Your task to perform on an android device: Show the shopping cart on newegg. Search for "usb-c to usb-a" on newegg, select the first entry, and add it to the cart. Image 0: 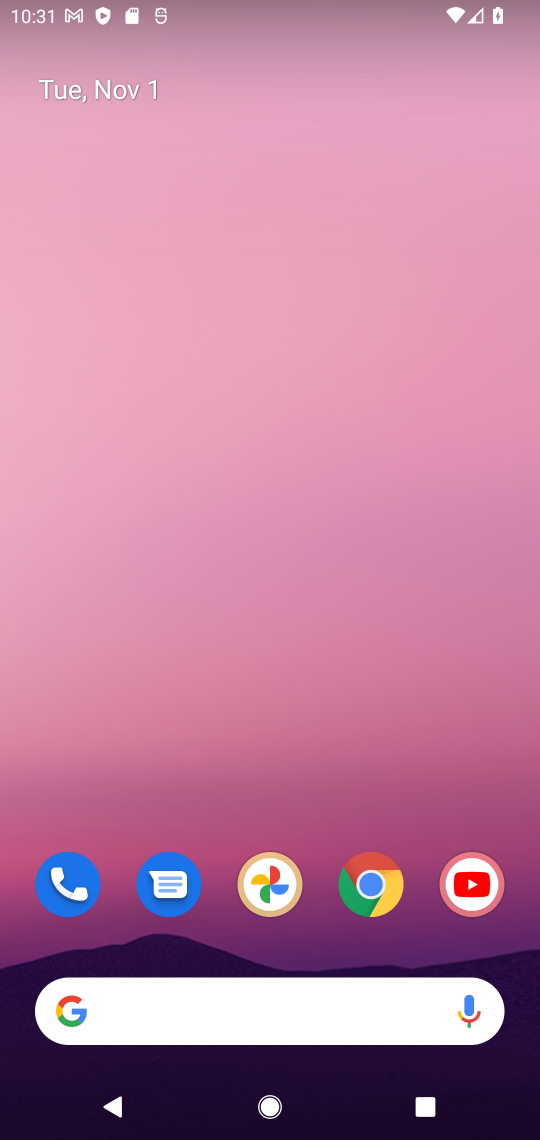
Step 0: click (355, 887)
Your task to perform on an android device: Show the shopping cart on newegg. Search for "usb-c to usb-a" on newegg, select the first entry, and add it to the cart. Image 1: 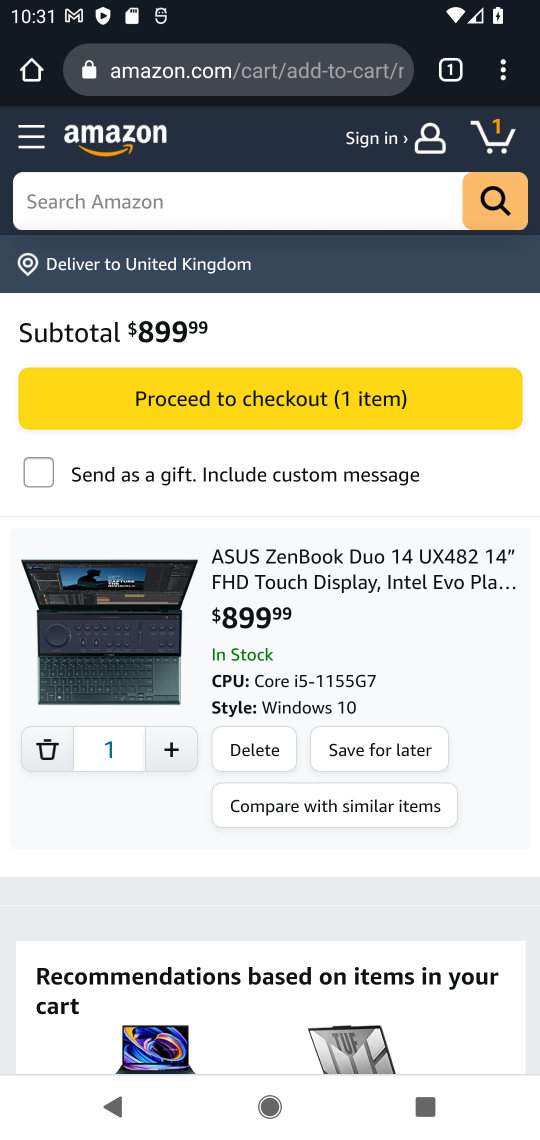
Step 1: click (266, 75)
Your task to perform on an android device: Show the shopping cart on newegg. Search for "usb-c to usb-a" on newegg, select the first entry, and add it to the cart. Image 2: 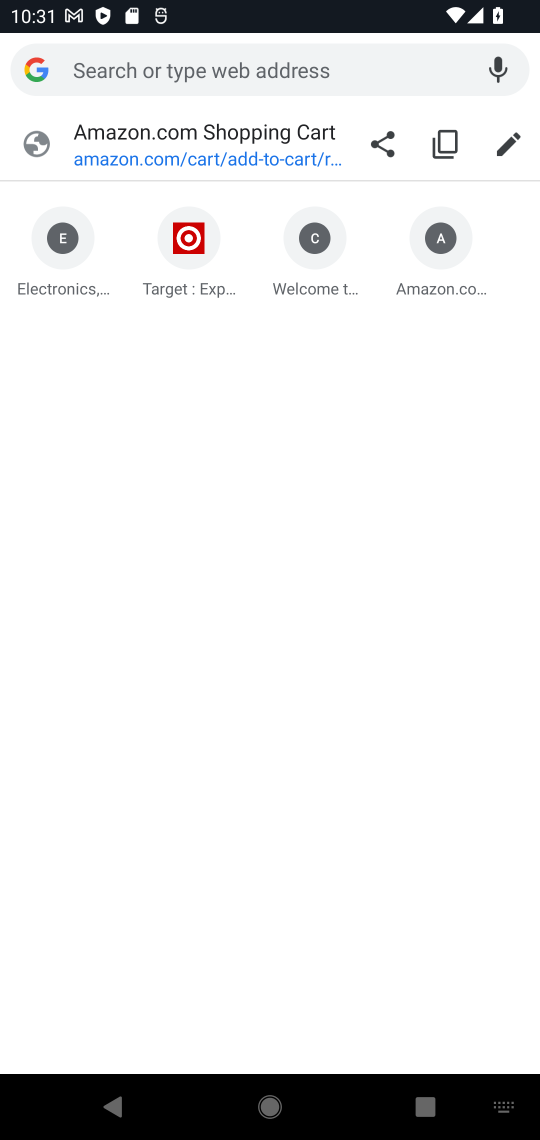
Step 2: type "newegg"
Your task to perform on an android device: Show the shopping cart on newegg. Search for "usb-c to usb-a" on newegg, select the first entry, and add it to the cart. Image 3: 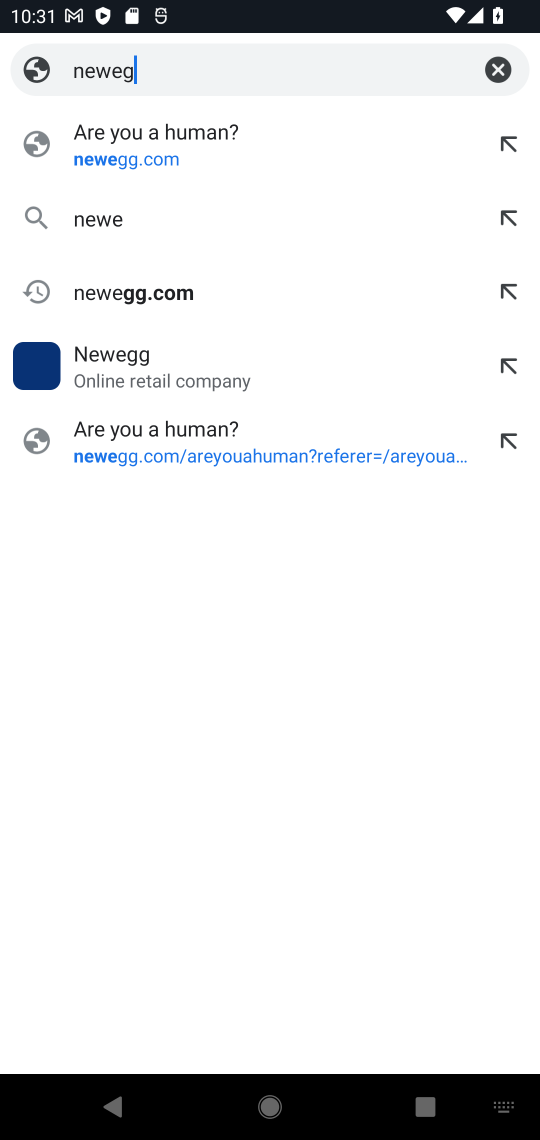
Step 3: type ""
Your task to perform on an android device: Show the shopping cart on newegg. Search for "usb-c to usb-a" on newegg, select the first entry, and add it to the cart. Image 4: 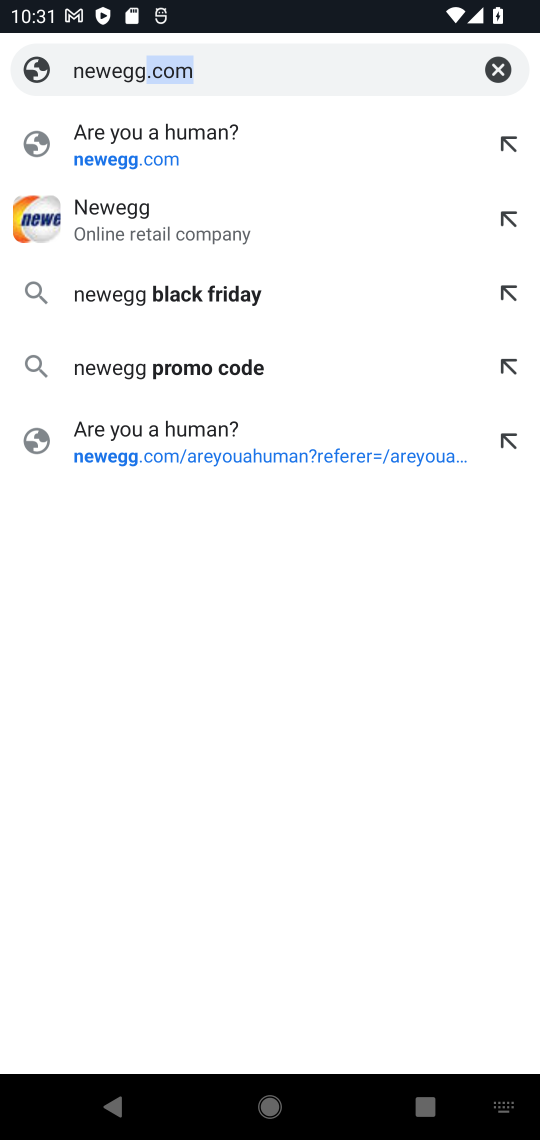
Step 4: press enter
Your task to perform on an android device: Show the shopping cart on newegg. Search for "usb-c to usb-a" on newegg, select the first entry, and add it to the cart. Image 5: 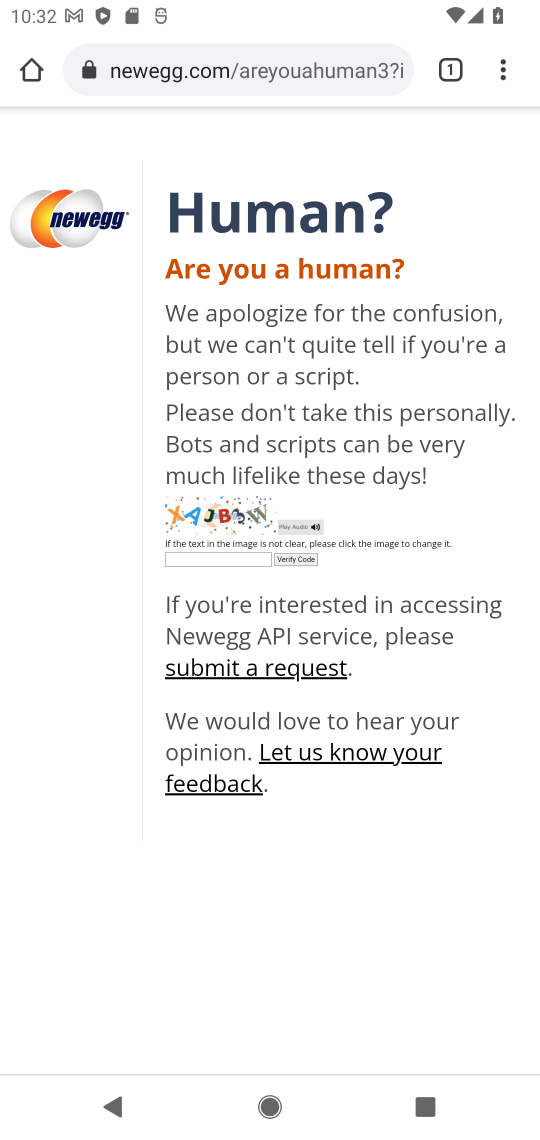
Step 5: click (196, 567)
Your task to perform on an android device: Show the shopping cart on newegg. Search for "usb-c to usb-a" on newegg, select the first entry, and add it to the cart. Image 6: 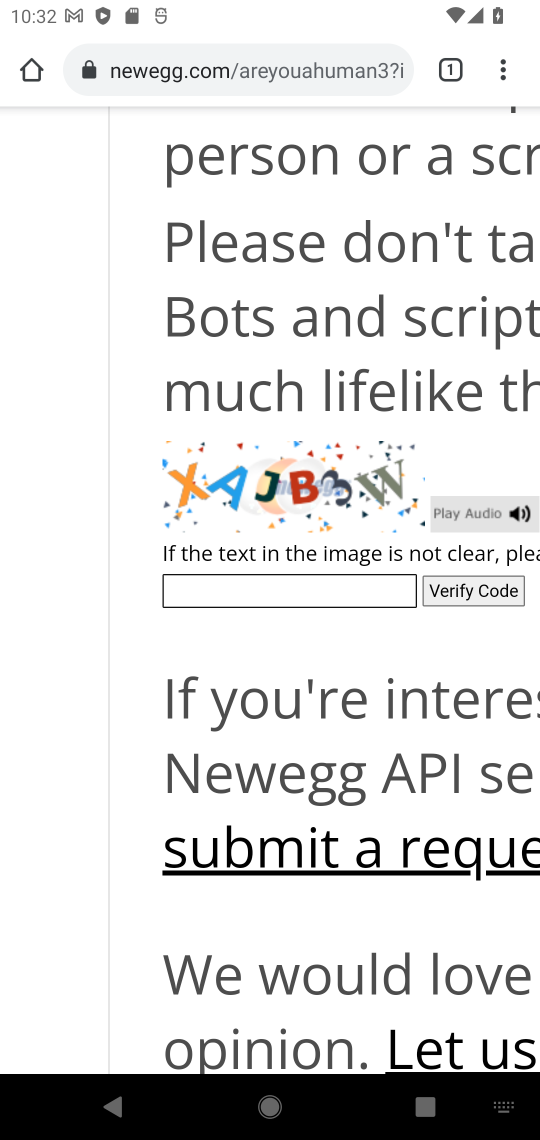
Step 6: type "XAJB3W"
Your task to perform on an android device: Show the shopping cart on newegg. Search for "usb-c to usb-a" on newegg, select the first entry, and add it to the cart. Image 7: 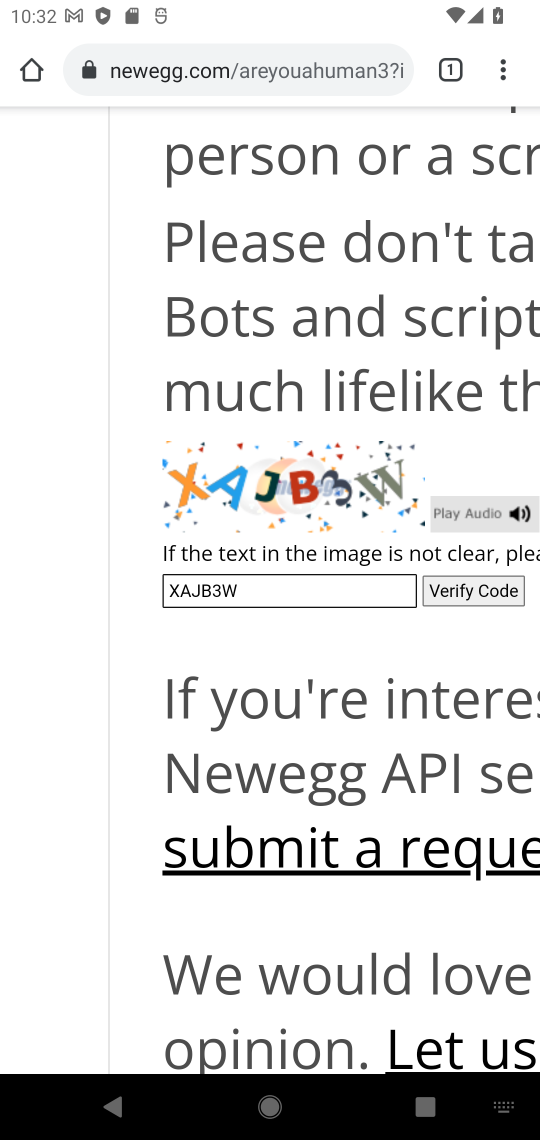
Step 7: click (476, 593)
Your task to perform on an android device: Show the shopping cart on newegg. Search for "usb-c to usb-a" on newegg, select the first entry, and add it to the cart. Image 8: 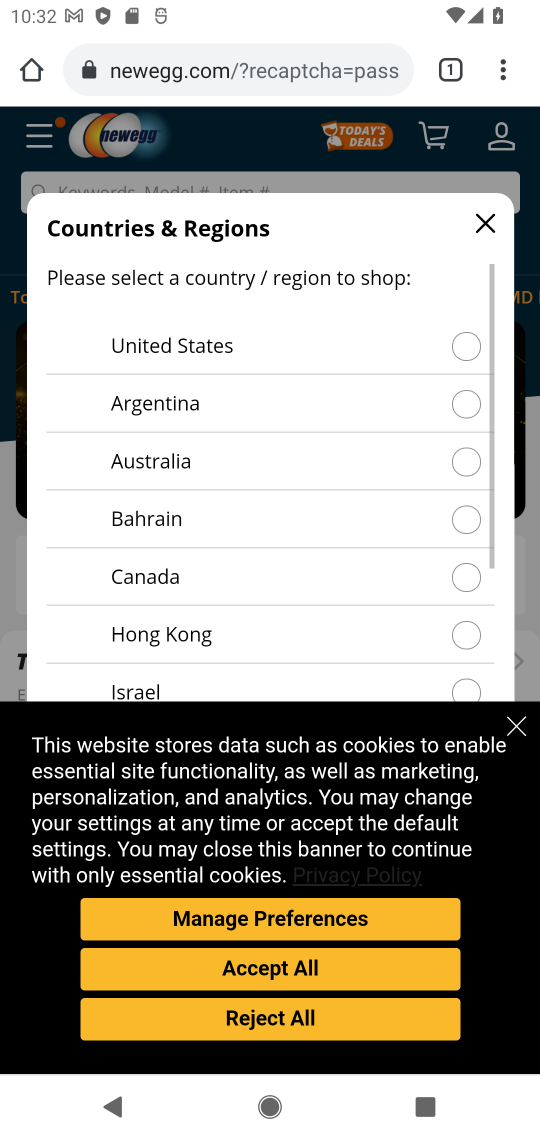
Step 8: click (326, 974)
Your task to perform on an android device: Show the shopping cart on newegg. Search for "usb-c to usb-a" on newegg, select the first entry, and add it to the cart. Image 9: 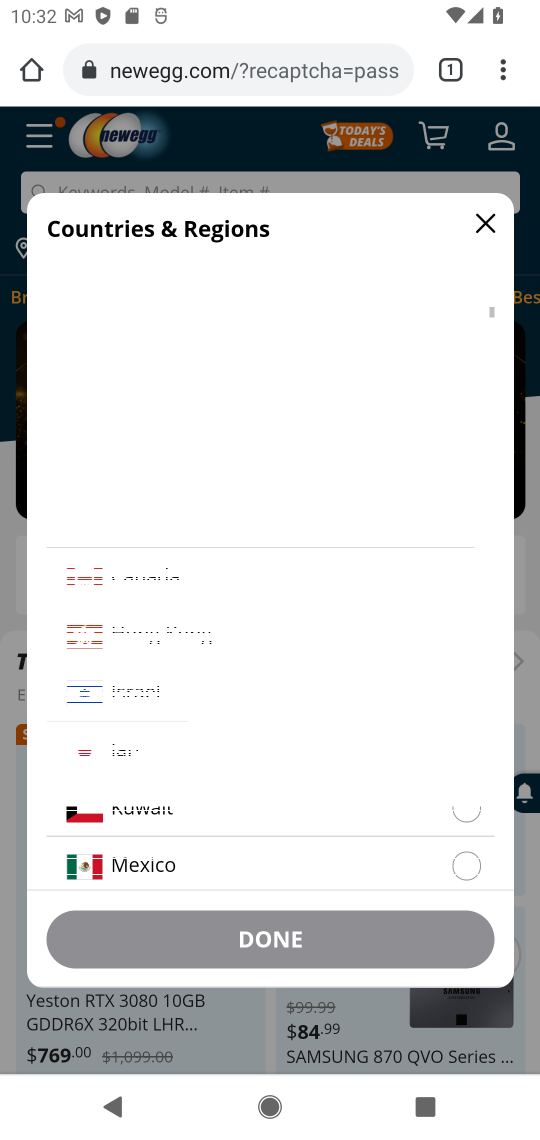
Step 9: click (458, 358)
Your task to perform on an android device: Show the shopping cart on newegg. Search for "usb-c to usb-a" on newegg, select the first entry, and add it to the cart. Image 10: 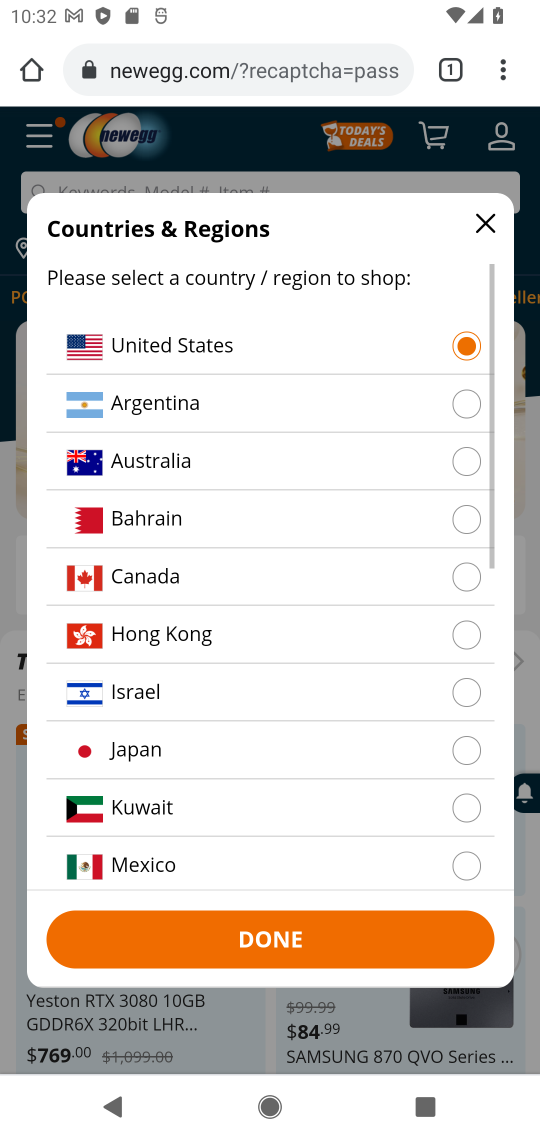
Step 10: click (362, 952)
Your task to perform on an android device: Show the shopping cart on newegg. Search for "usb-c to usb-a" on newegg, select the first entry, and add it to the cart. Image 11: 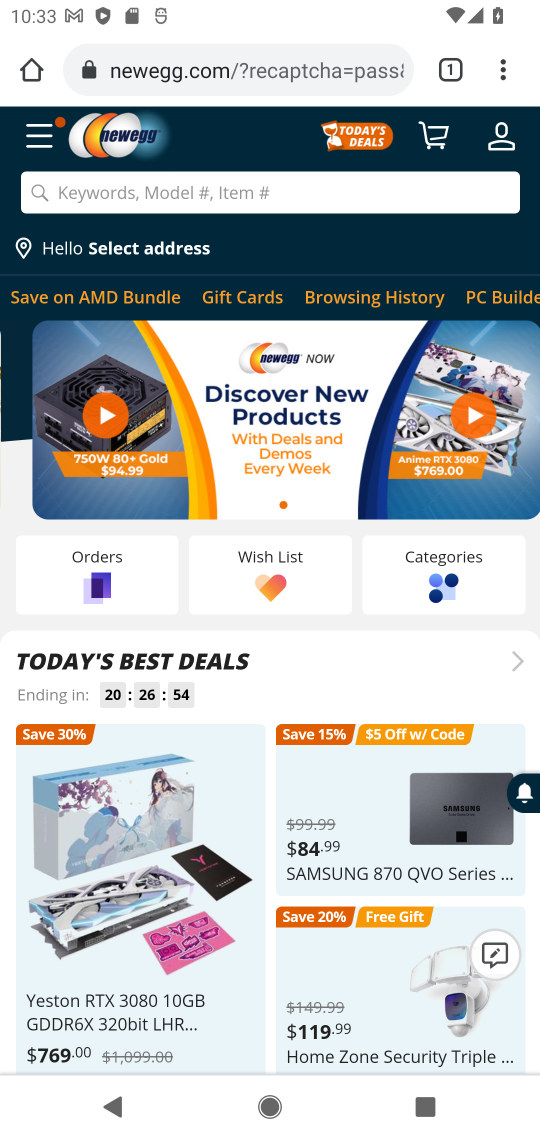
Step 11: click (266, 201)
Your task to perform on an android device: Show the shopping cart on newegg. Search for "usb-c to usb-a" on newegg, select the first entry, and add it to the cart. Image 12: 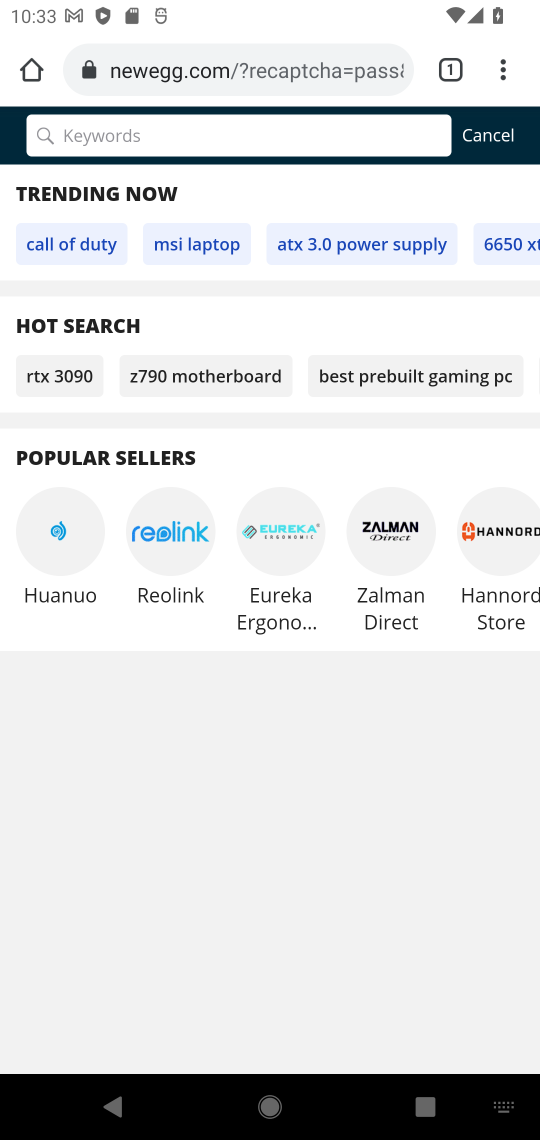
Step 12: type "usb-c to usb-a"
Your task to perform on an android device: Show the shopping cart on newegg. Search for "usb-c to usb-a" on newegg, select the first entry, and add it to the cart. Image 13: 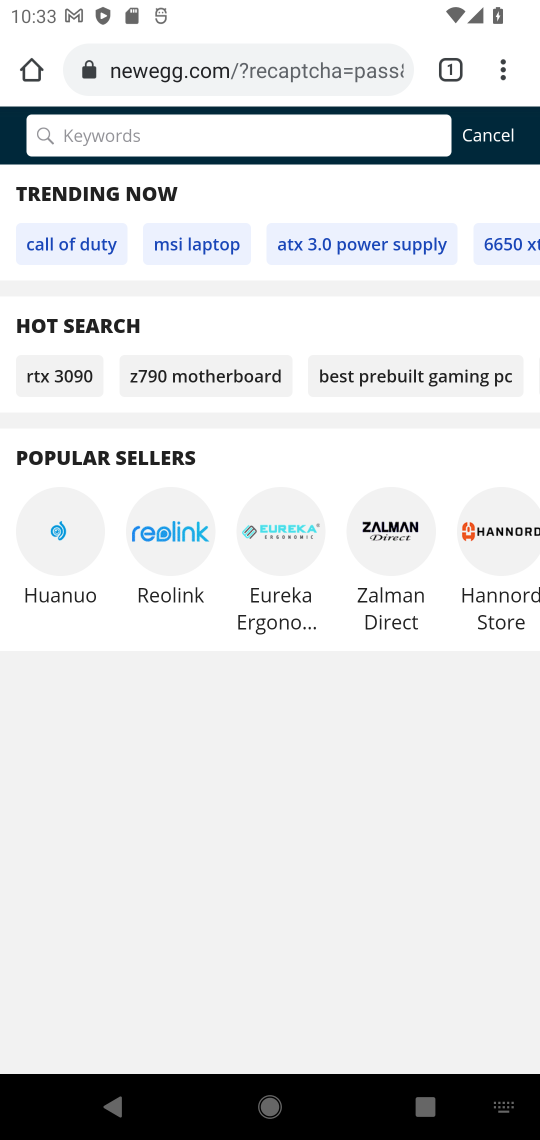
Step 13: type ""
Your task to perform on an android device: Show the shopping cart on newegg. Search for "usb-c to usb-a" on newegg, select the first entry, and add it to the cart. Image 14: 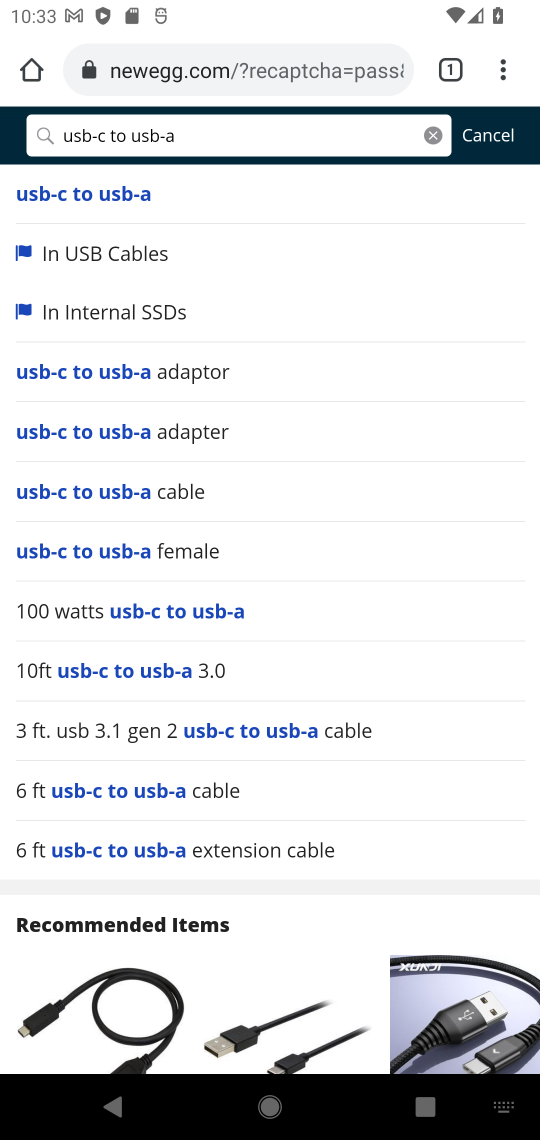
Step 14: press enter
Your task to perform on an android device: Show the shopping cart on newegg. Search for "usb-c to usb-a" on newegg, select the first entry, and add it to the cart. Image 15: 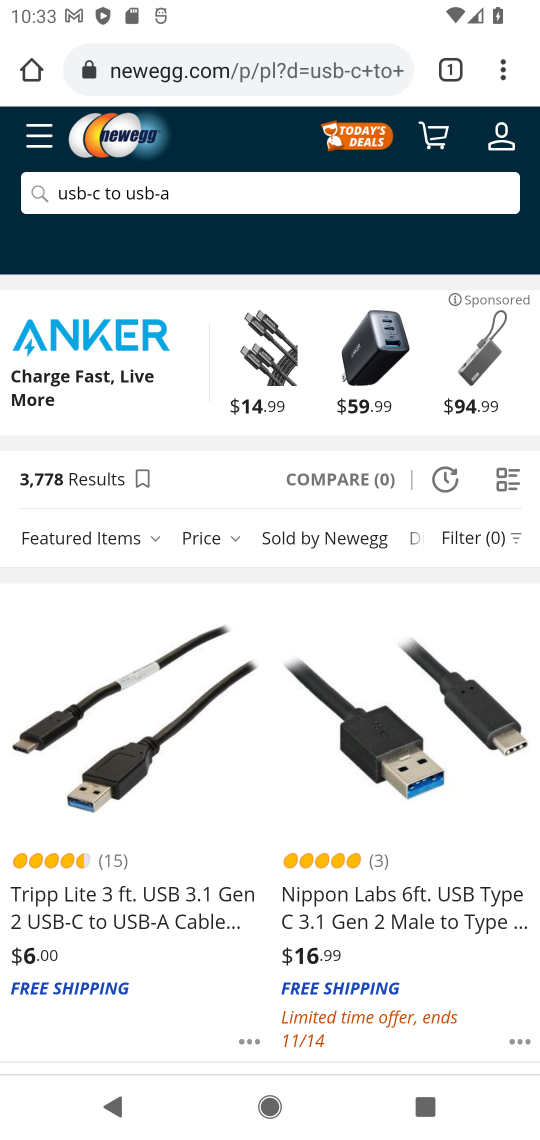
Step 15: click (428, 144)
Your task to perform on an android device: Show the shopping cart on newegg. Search for "usb-c to usb-a" on newegg, select the first entry, and add it to the cart. Image 16: 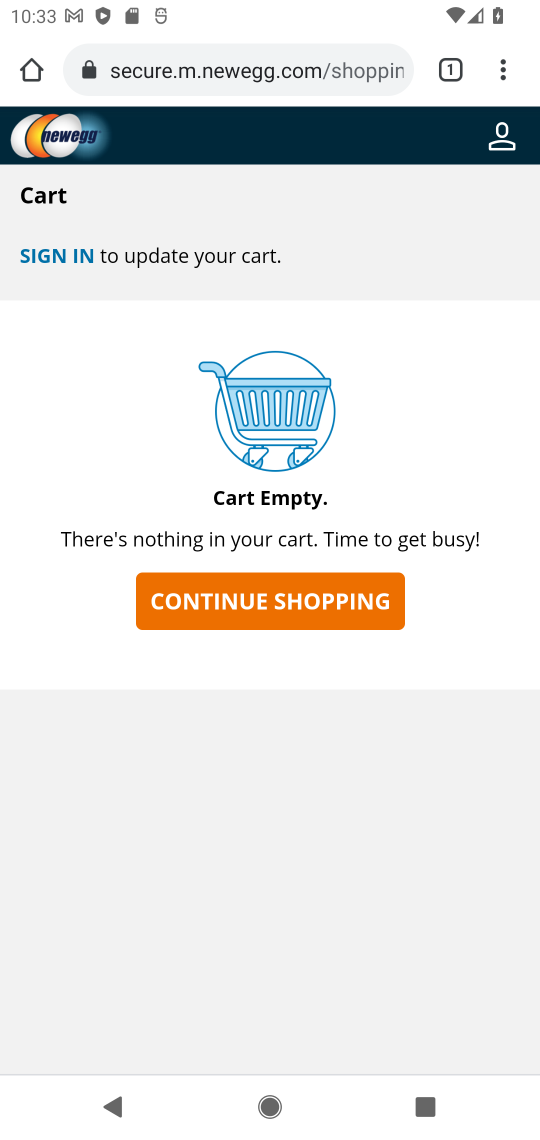
Step 16: click (343, 602)
Your task to perform on an android device: Show the shopping cart on newegg. Search for "usb-c to usb-a" on newegg, select the first entry, and add it to the cart. Image 17: 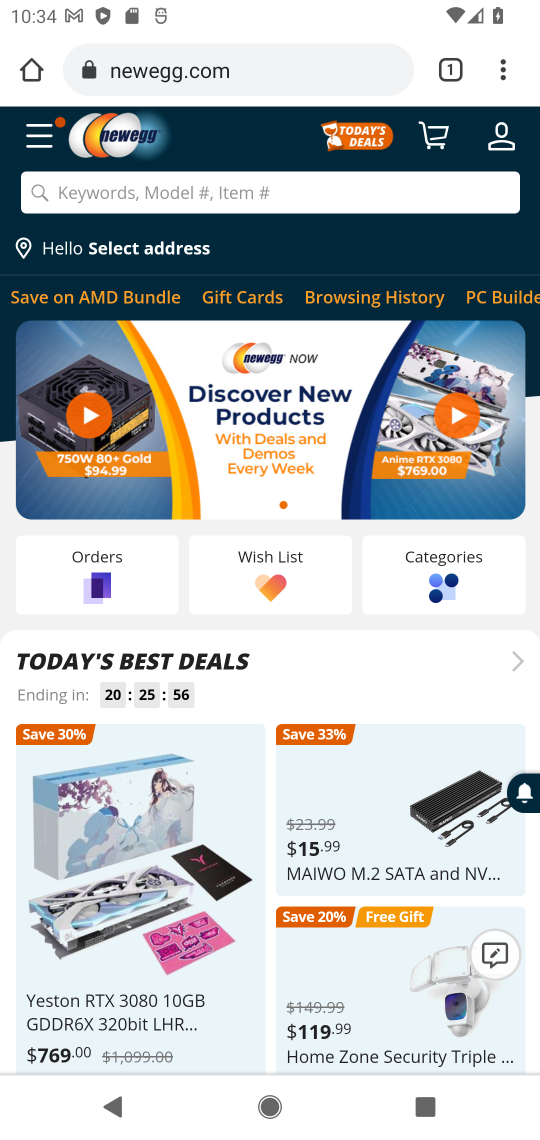
Step 17: click (243, 198)
Your task to perform on an android device: Show the shopping cart on newegg. Search for "usb-c to usb-a" on newegg, select the first entry, and add it to the cart. Image 18: 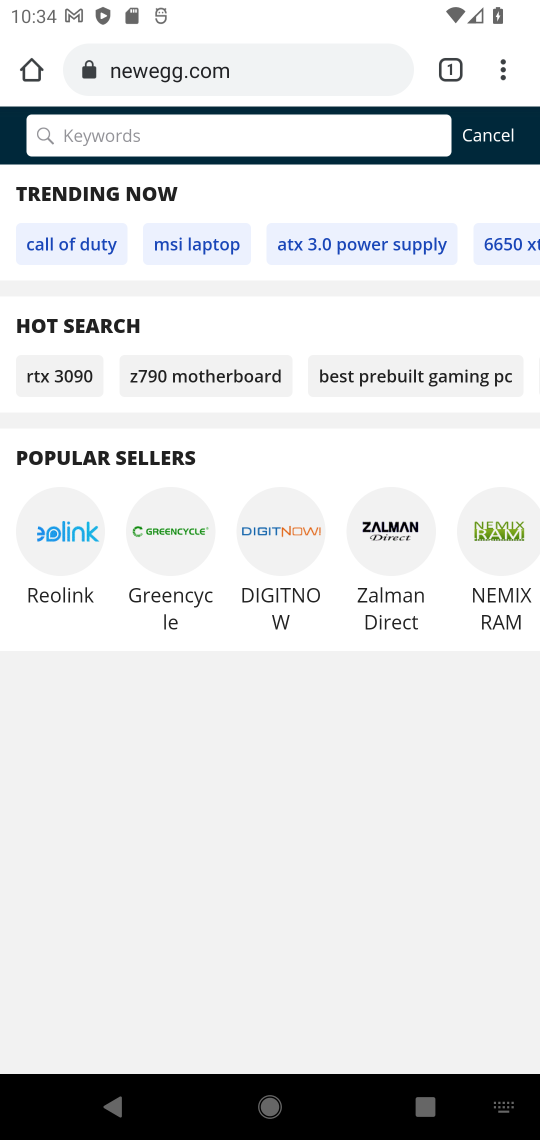
Step 18: type "usb-c to usb-a"
Your task to perform on an android device: Show the shopping cart on newegg. Search for "usb-c to usb-a" on newegg, select the first entry, and add it to the cart. Image 19: 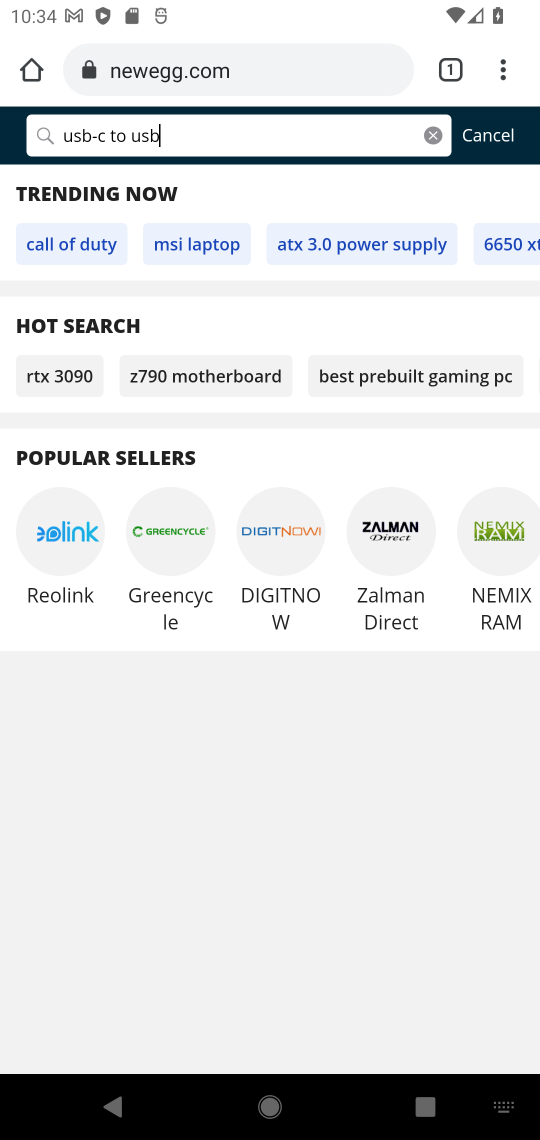
Step 19: type ""
Your task to perform on an android device: Show the shopping cart on newegg. Search for "usb-c to usb-a" on newegg, select the first entry, and add it to the cart. Image 20: 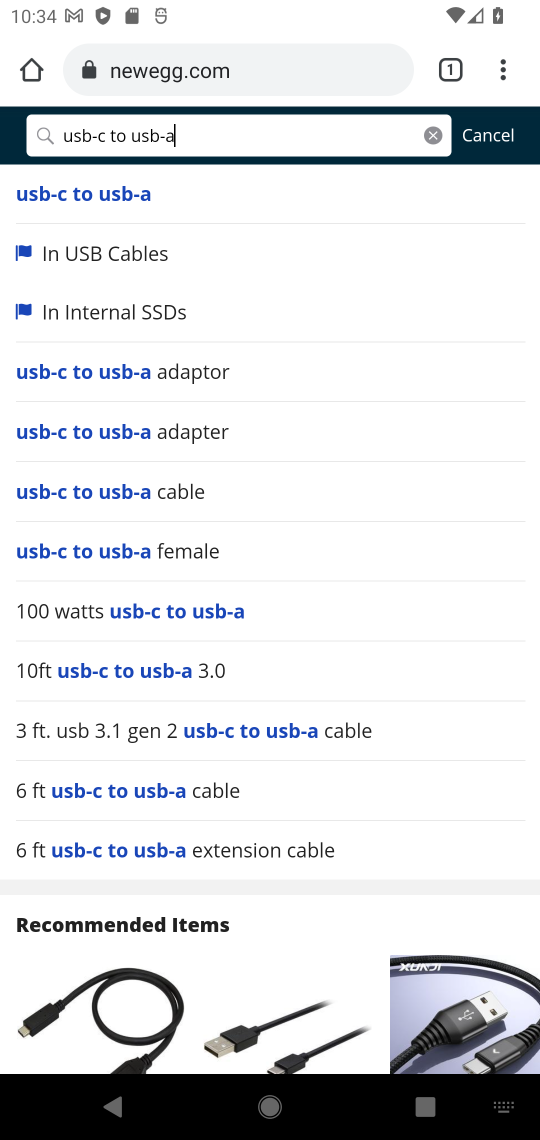
Step 20: task complete